Your task to perform on an android device: install app "Gboard" Image 0: 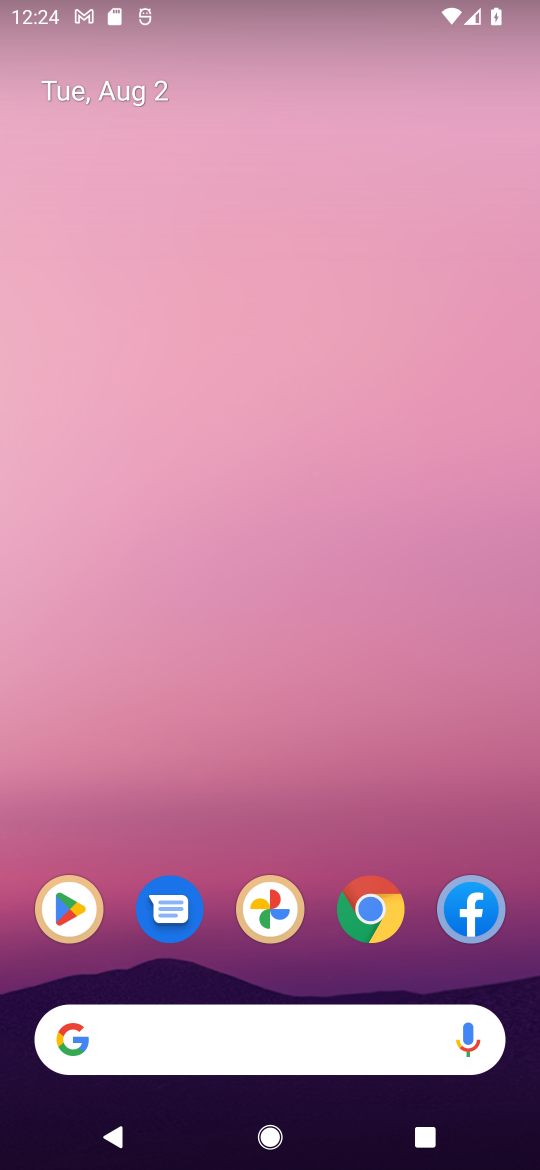
Step 0: click (70, 895)
Your task to perform on an android device: install app "Gboard" Image 1: 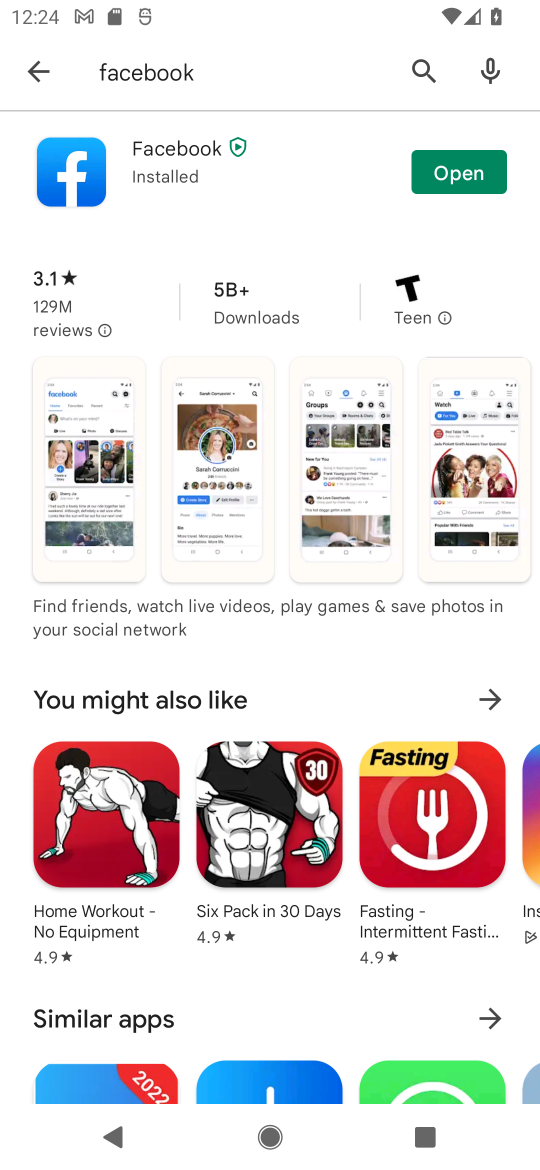
Step 1: click (428, 67)
Your task to perform on an android device: install app "Gboard" Image 2: 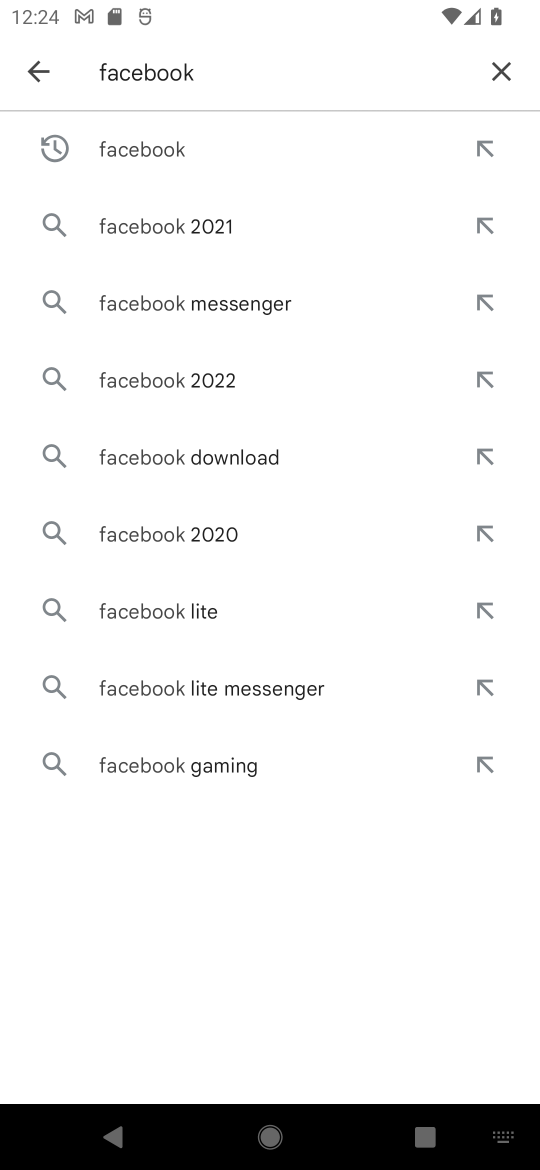
Step 2: click (507, 73)
Your task to perform on an android device: install app "Gboard" Image 3: 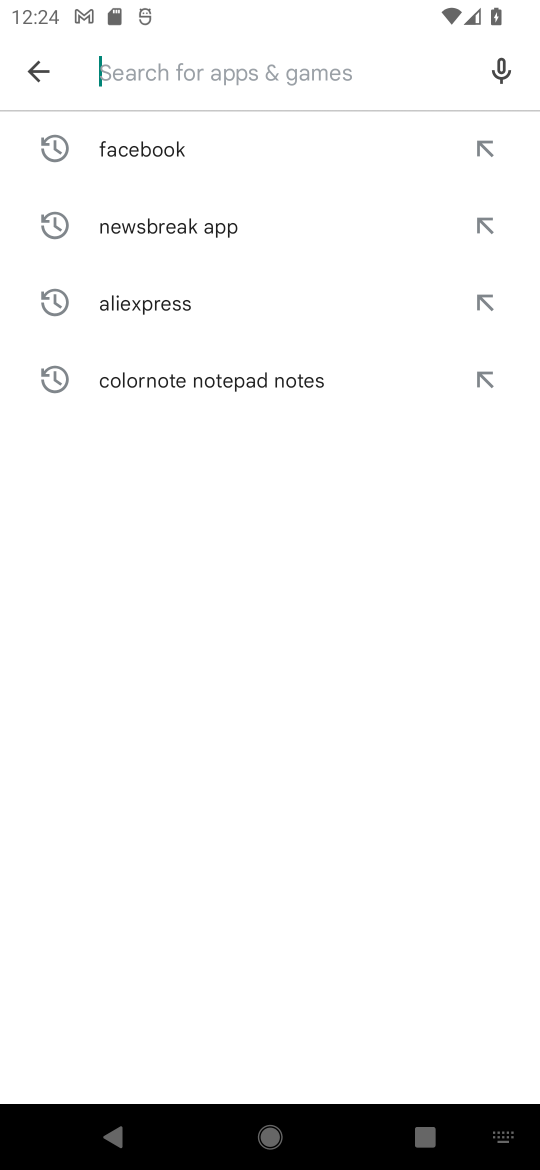
Step 3: type "Gboard"
Your task to perform on an android device: install app "Gboard" Image 4: 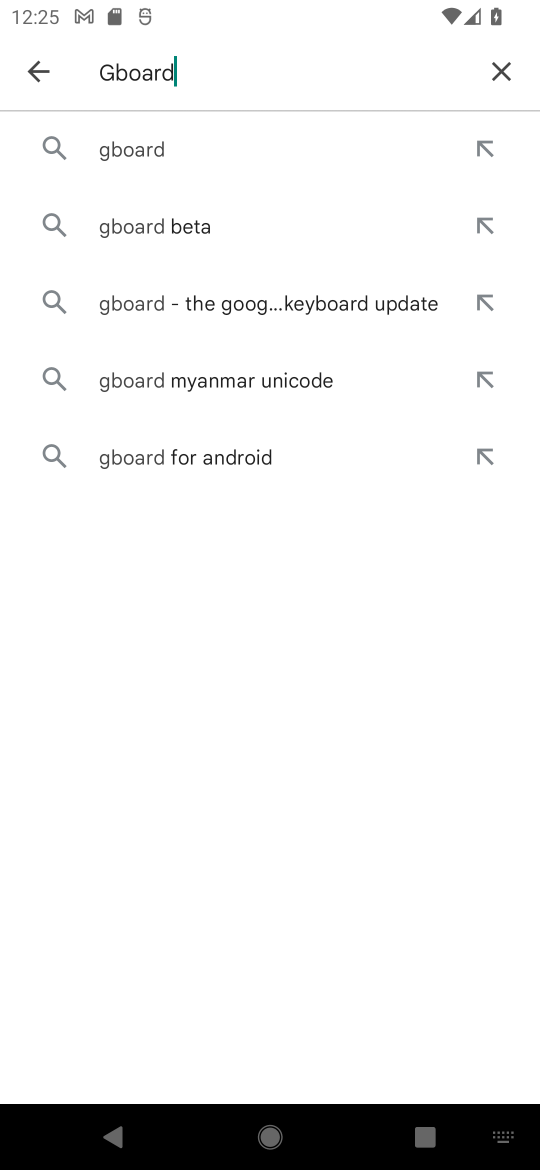
Step 4: click (123, 147)
Your task to perform on an android device: install app "Gboard" Image 5: 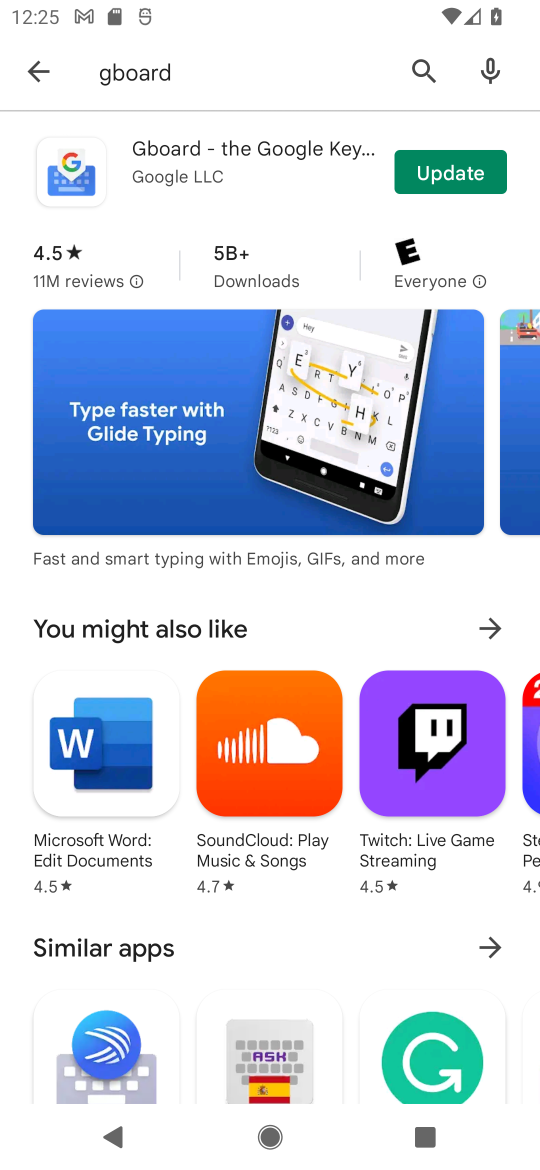
Step 5: task complete